Your task to perform on an android device: toggle notification dots Image 0: 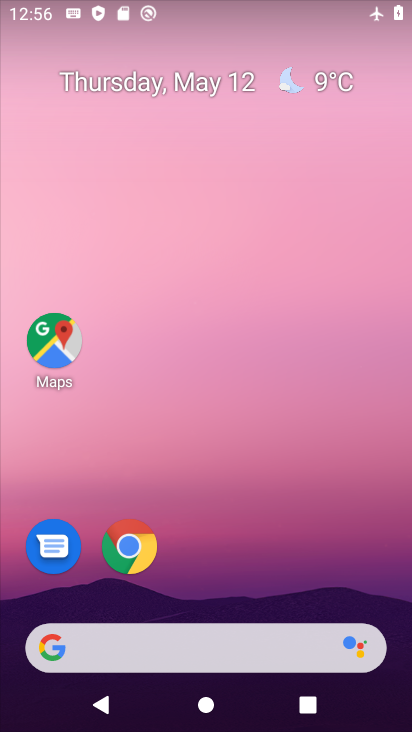
Step 0: press home button
Your task to perform on an android device: toggle notification dots Image 1: 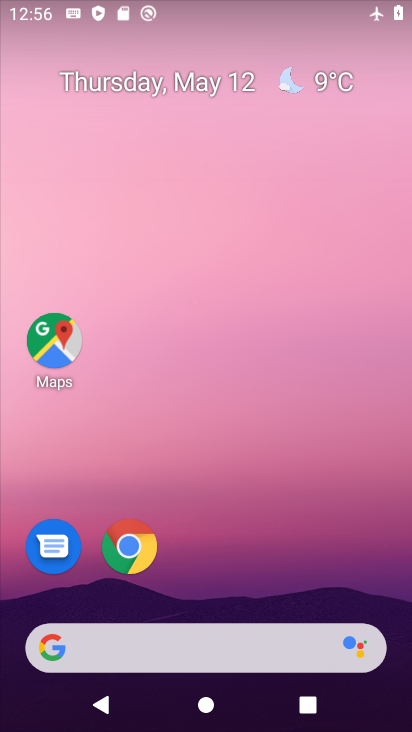
Step 1: drag from (184, 681) to (253, 245)
Your task to perform on an android device: toggle notification dots Image 2: 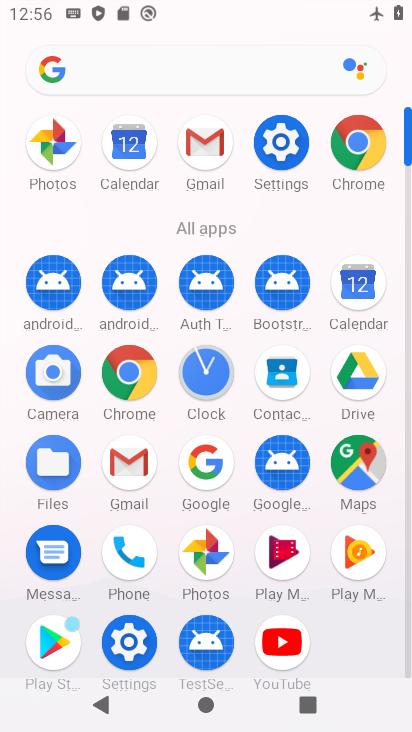
Step 2: click (273, 150)
Your task to perform on an android device: toggle notification dots Image 3: 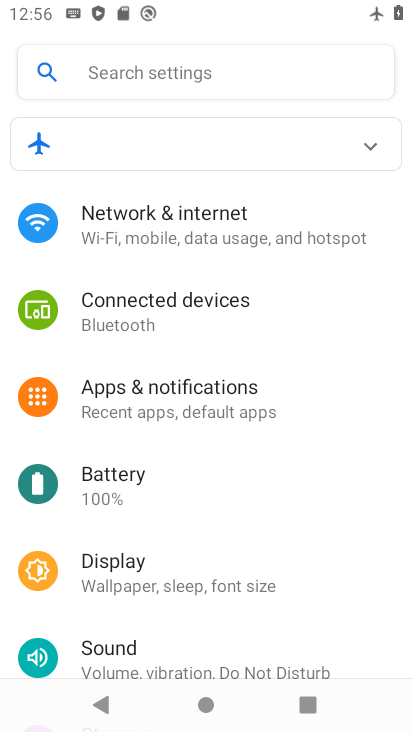
Step 3: click (176, 78)
Your task to perform on an android device: toggle notification dots Image 4: 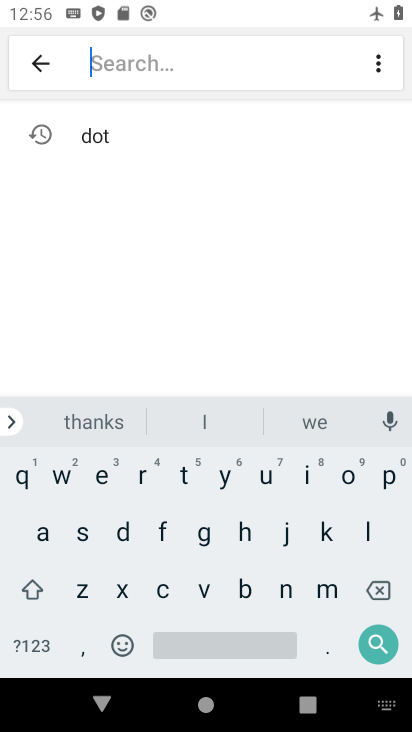
Step 4: click (91, 139)
Your task to perform on an android device: toggle notification dots Image 5: 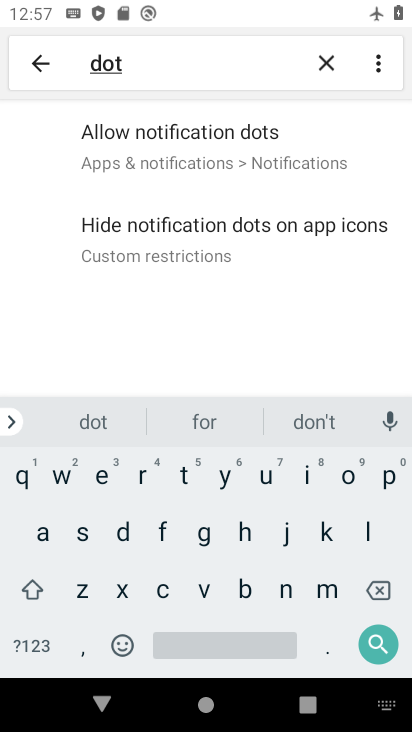
Step 5: click (126, 150)
Your task to perform on an android device: toggle notification dots Image 6: 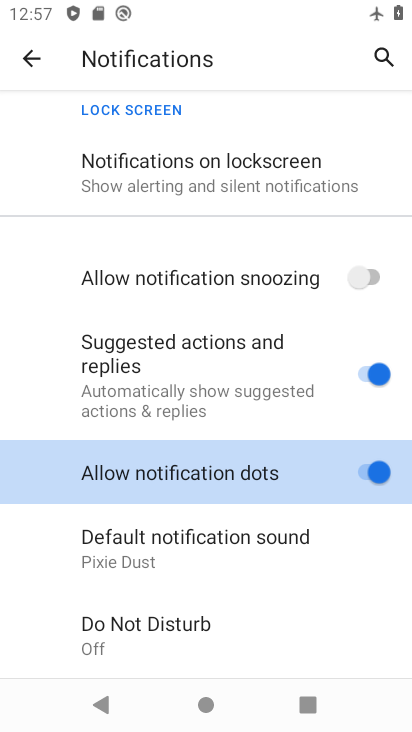
Step 6: task complete